Your task to perform on an android device: Go to CNN.com Image 0: 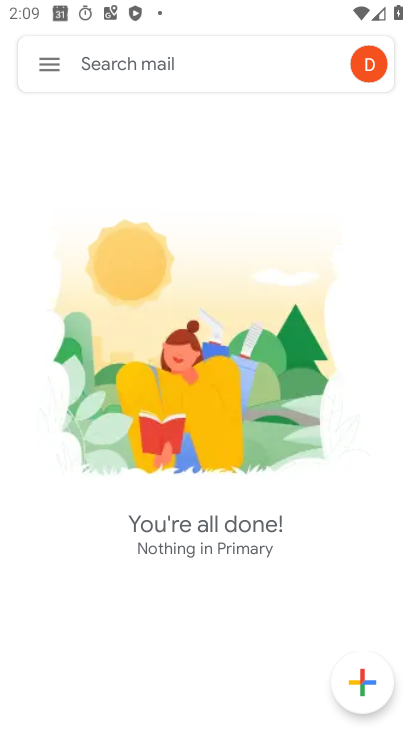
Step 0: press home button
Your task to perform on an android device: Go to CNN.com Image 1: 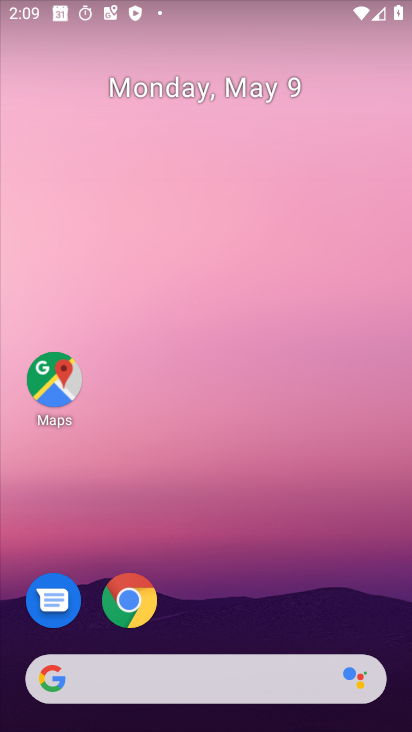
Step 1: drag from (198, 590) to (218, 175)
Your task to perform on an android device: Go to CNN.com Image 2: 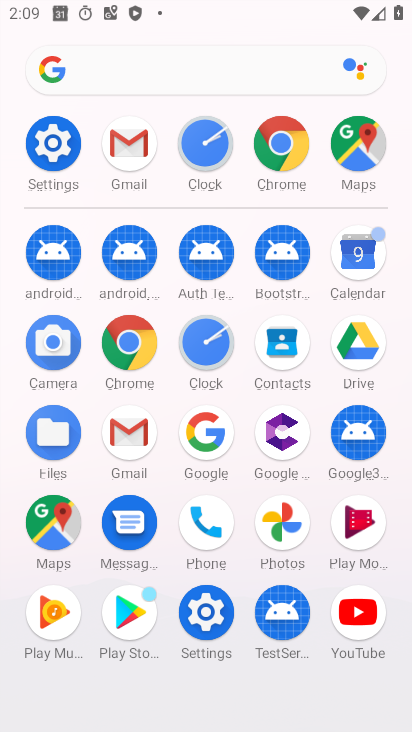
Step 2: click (139, 354)
Your task to perform on an android device: Go to CNN.com Image 3: 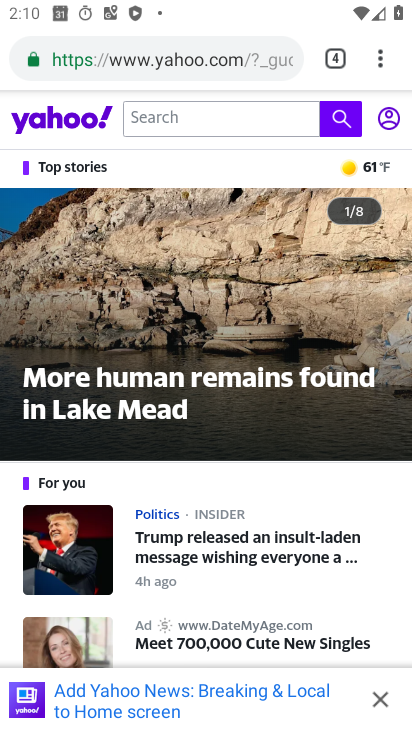
Step 3: click (337, 60)
Your task to perform on an android device: Go to CNN.com Image 4: 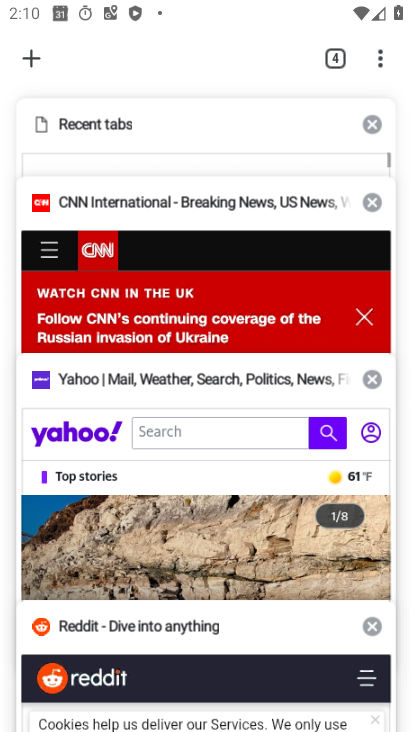
Step 4: click (34, 58)
Your task to perform on an android device: Go to CNN.com Image 5: 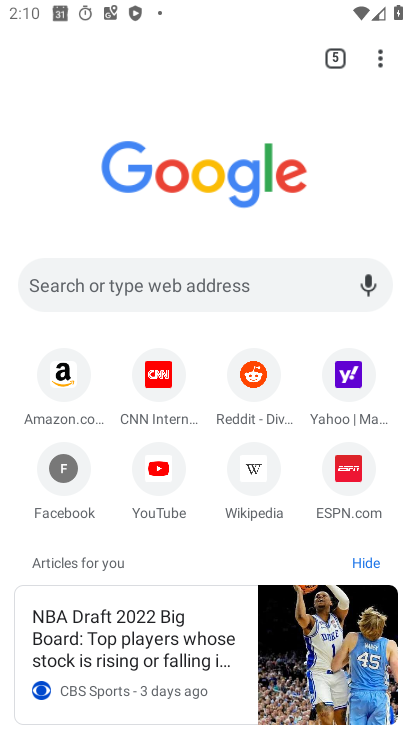
Step 5: click (222, 279)
Your task to perform on an android device: Go to CNN.com Image 6: 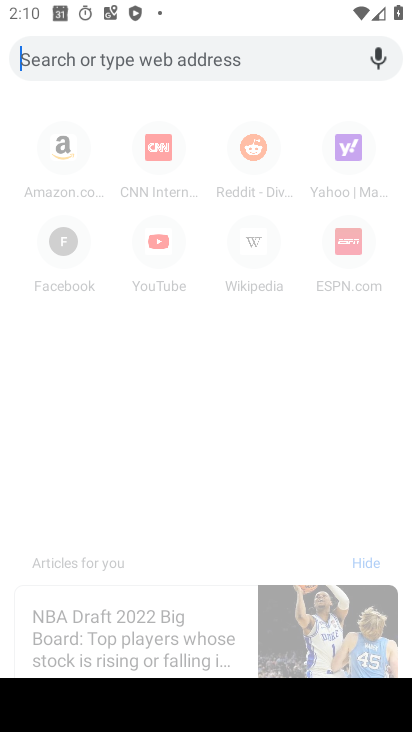
Step 6: type "CNN.com"
Your task to perform on an android device: Go to CNN.com Image 7: 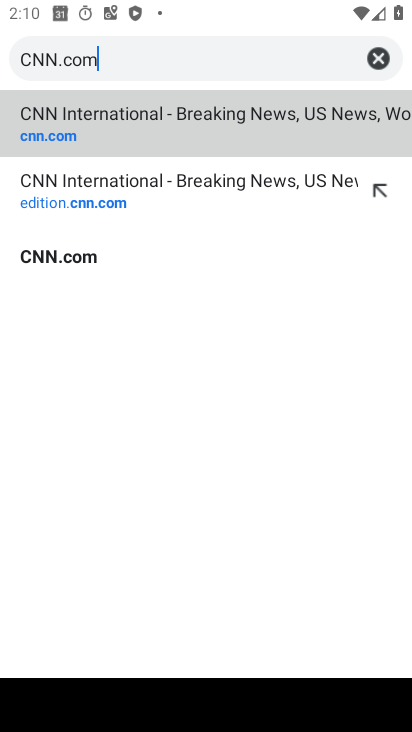
Step 7: type ""
Your task to perform on an android device: Go to CNN.com Image 8: 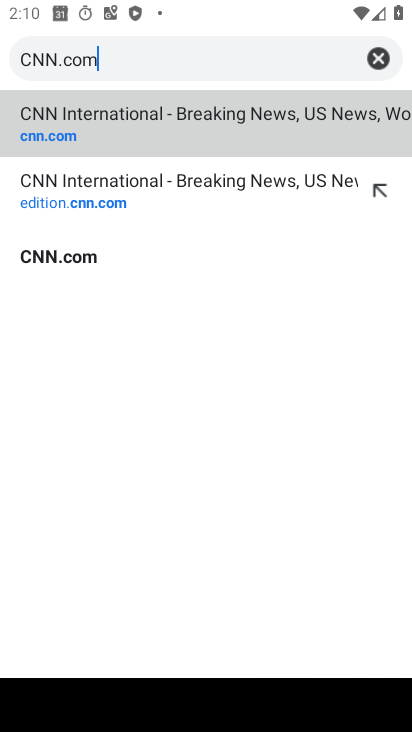
Step 8: click (248, 147)
Your task to perform on an android device: Go to CNN.com Image 9: 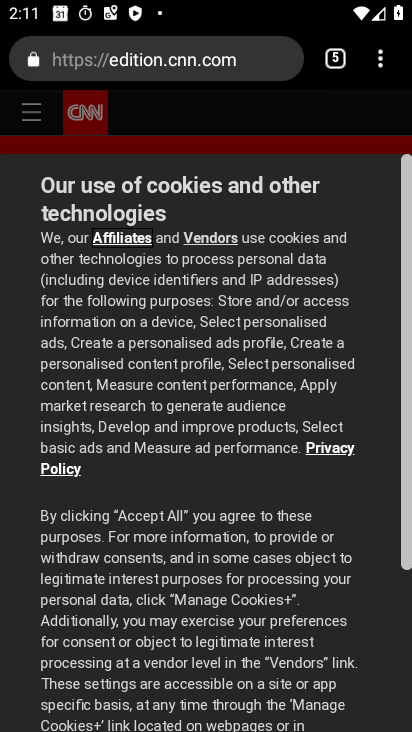
Step 9: task complete